Your task to perform on an android device: Open privacy settings Image 0: 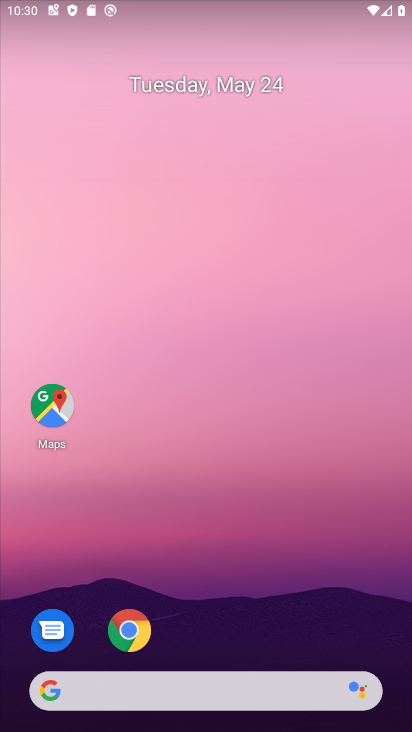
Step 0: drag from (215, 534) to (237, 8)
Your task to perform on an android device: Open privacy settings Image 1: 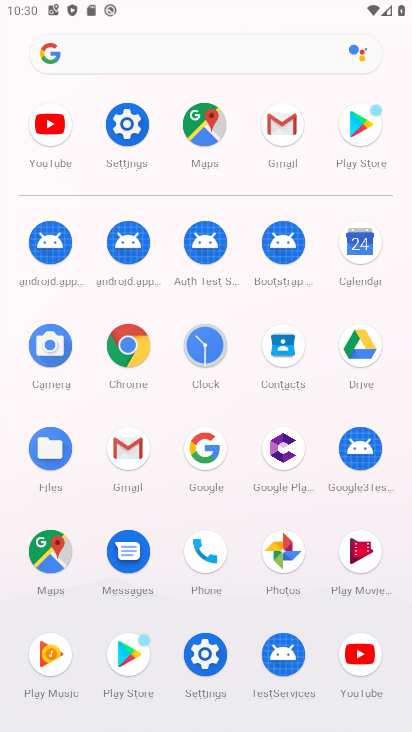
Step 1: click (125, 120)
Your task to perform on an android device: Open privacy settings Image 2: 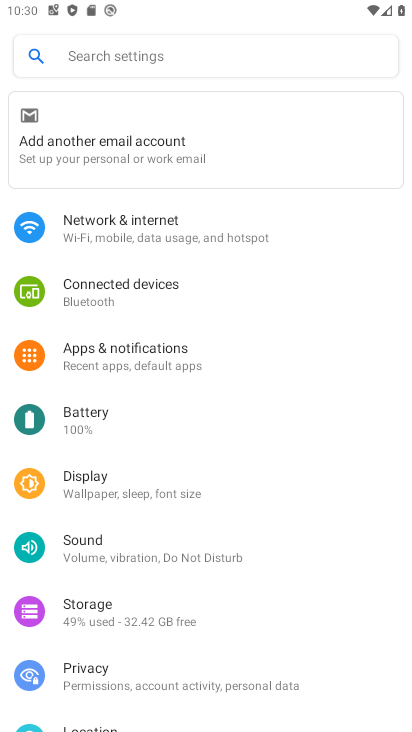
Step 2: click (121, 664)
Your task to perform on an android device: Open privacy settings Image 3: 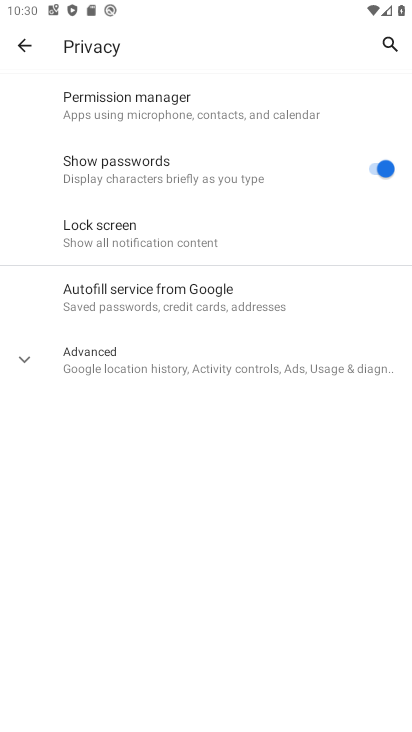
Step 3: click (27, 353)
Your task to perform on an android device: Open privacy settings Image 4: 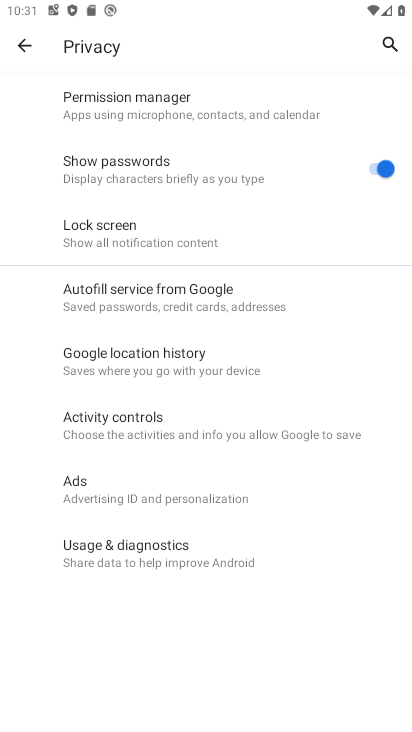
Step 4: task complete